Your task to perform on an android device: toggle show notifications on the lock screen Image 0: 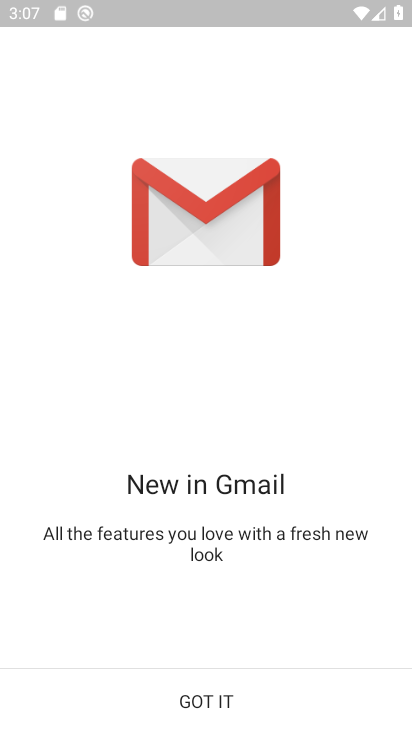
Step 0: press home button
Your task to perform on an android device: toggle show notifications on the lock screen Image 1: 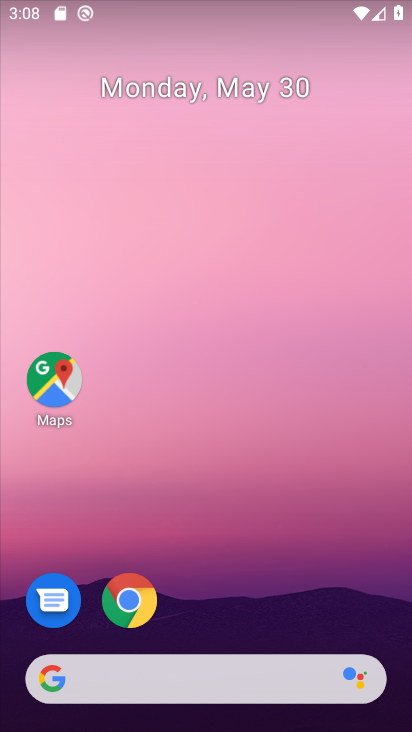
Step 1: drag from (292, 637) to (376, 31)
Your task to perform on an android device: toggle show notifications on the lock screen Image 2: 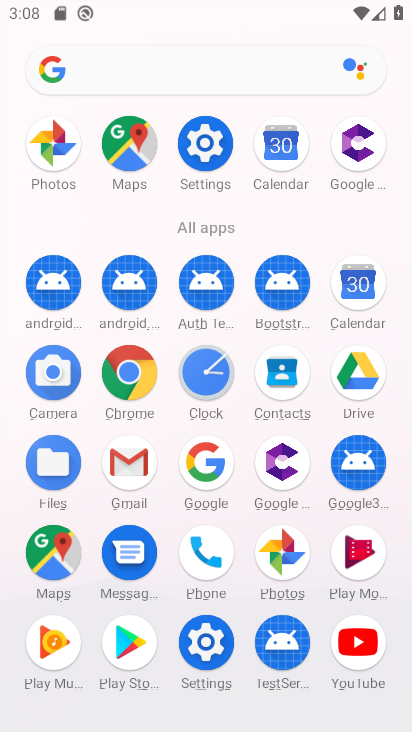
Step 2: click (186, 643)
Your task to perform on an android device: toggle show notifications on the lock screen Image 3: 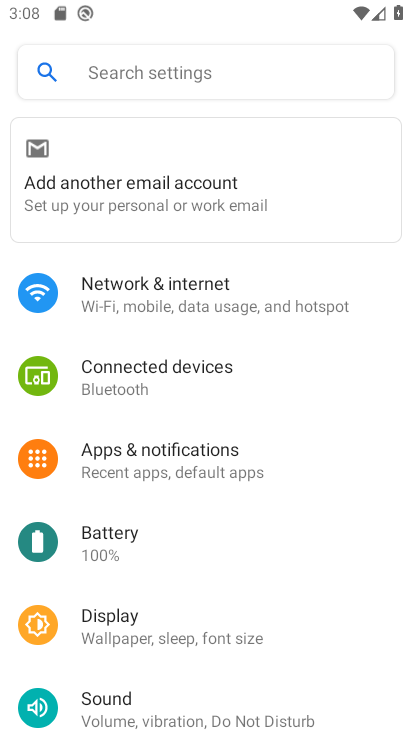
Step 3: drag from (212, 566) to (367, 15)
Your task to perform on an android device: toggle show notifications on the lock screen Image 4: 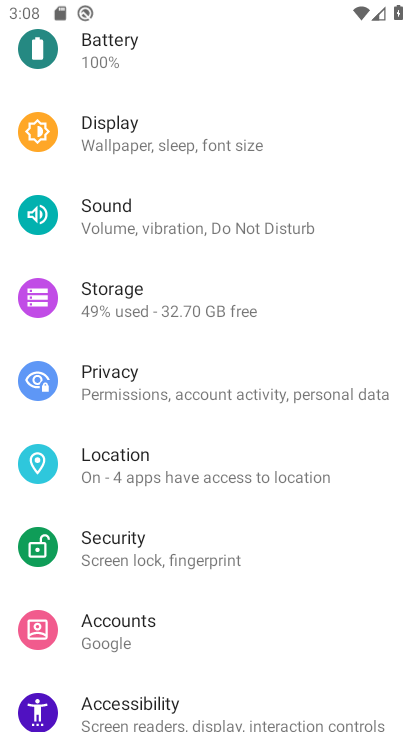
Step 4: drag from (210, 114) to (222, 546)
Your task to perform on an android device: toggle show notifications on the lock screen Image 5: 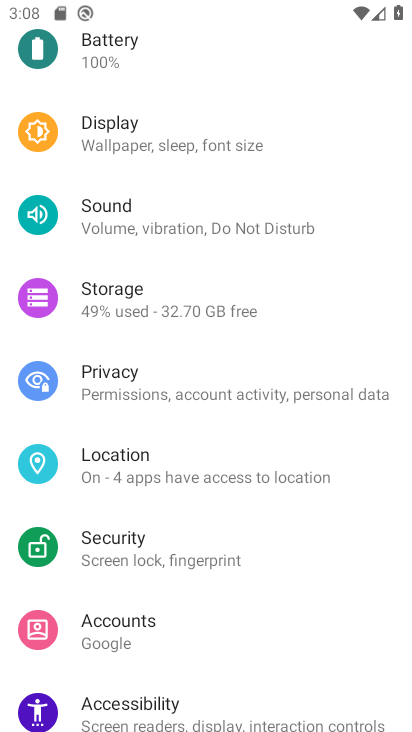
Step 5: drag from (315, 294) to (343, 556)
Your task to perform on an android device: toggle show notifications on the lock screen Image 6: 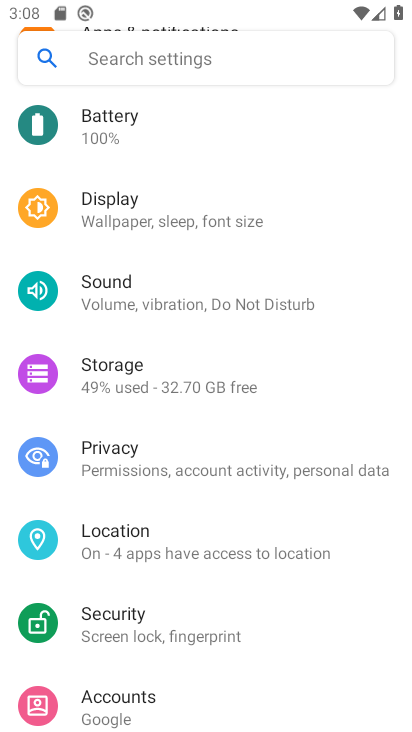
Step 6: drag from (222, 158) to (148, 569)
Your task to perform on an android device: toggle show notifications on the lock screen Image 7: 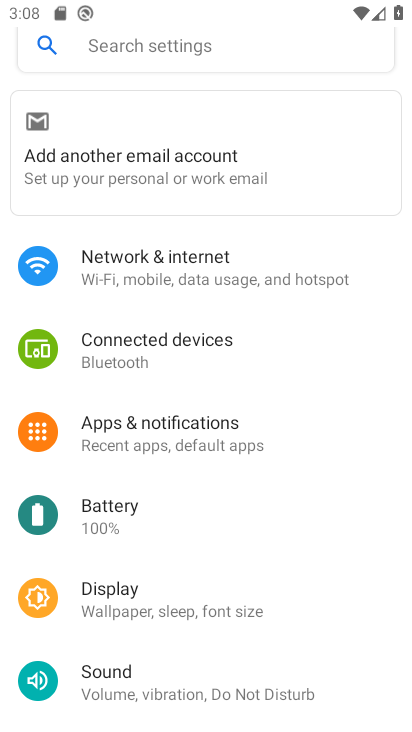
Step 7: click (110, 446)
Your task to perform on an android device: toggle show notifications on the lock screen Image 8: 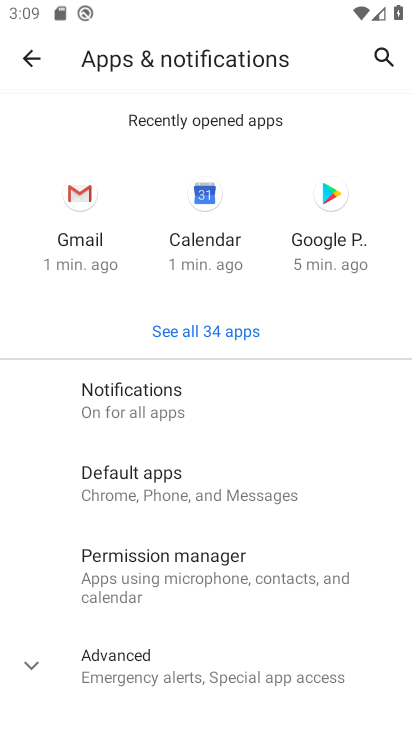
Step 8: click (196, 412)
Your task to perform on an android device: toggle show notifications on the lock screen Image 9: 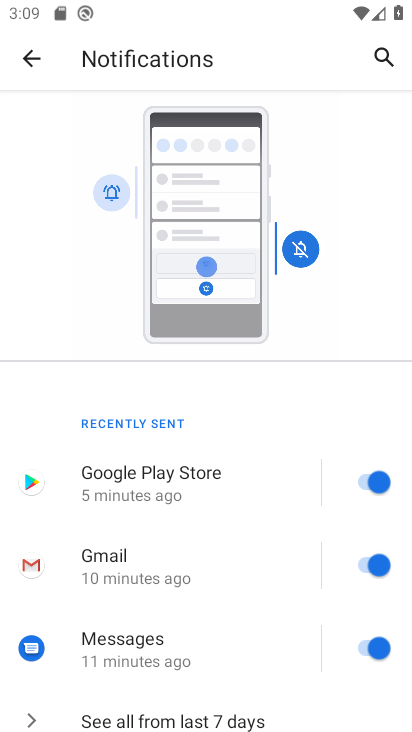
Step 9: drag from (274, 687) to (313, 207)
Your task to perform on an android device: toggle show notifications on the lock screen Image 10: 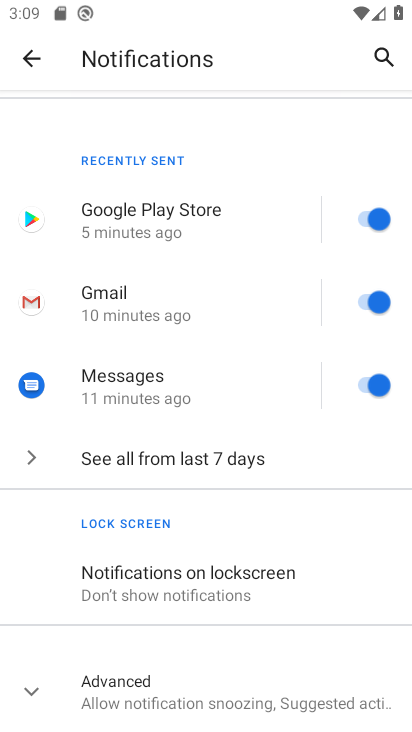
Step 10: click (226, 570)
Your task to perform on an android device: toggle show notifications on the lock screen Image 11: 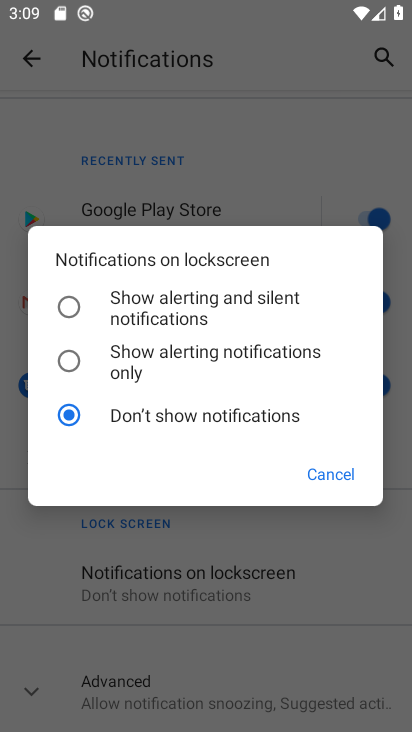
Step 11: click (242, 301)
Your task to perform on an android device: toggle show notifications on the lock screen Image 12: 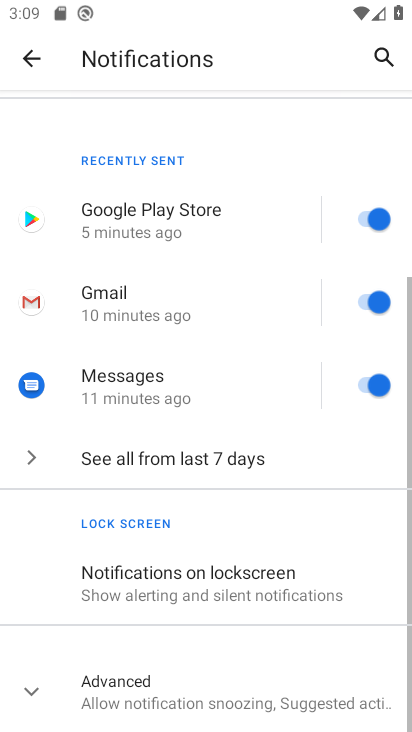
Step 12: task complete